Your task to perform on an android device: change keyboard looks Image 0: 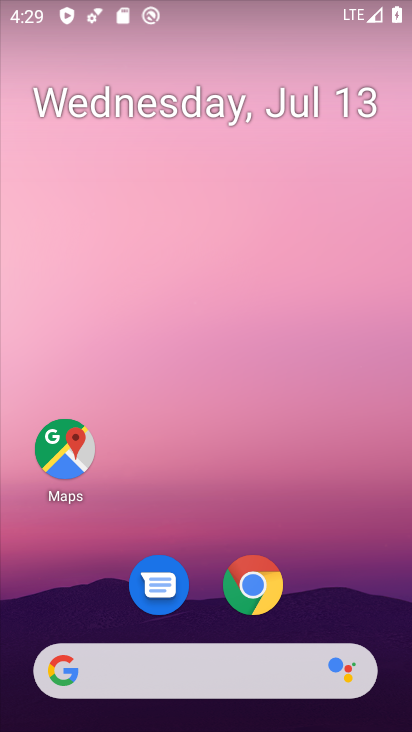
Step 0: drag from (376, 608) to (361, 41)
Your task to perform on an android device: change keyboard looks Image 1: 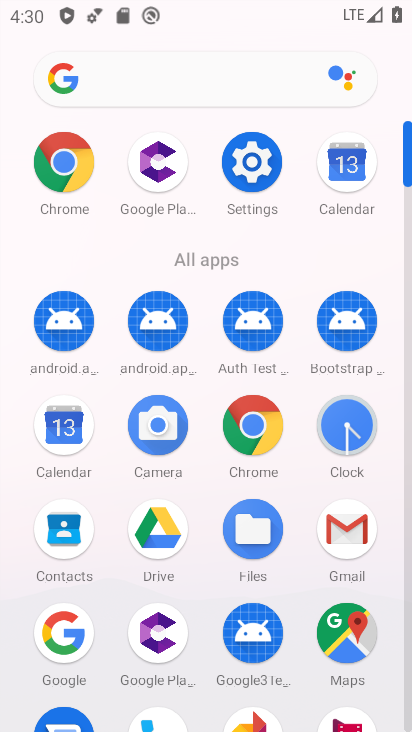
Step 1: click (254, 163)
Your task to perform on an android device: change keyboard looks Image 2: 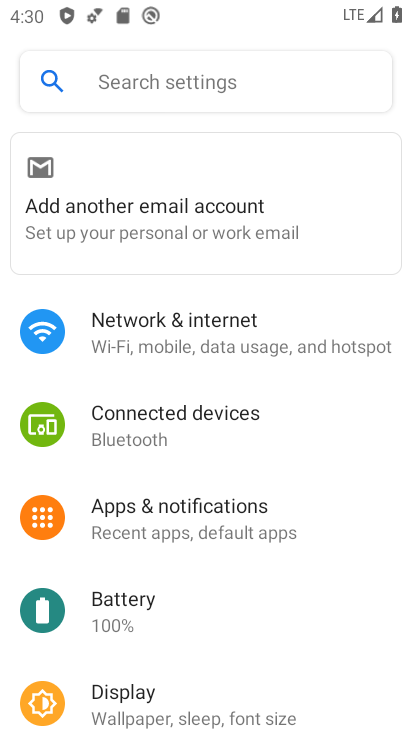
Step 2: drag from (213, 628) to (274, 1)
Your task to perform on an android device: change keyboard looks Image 3: 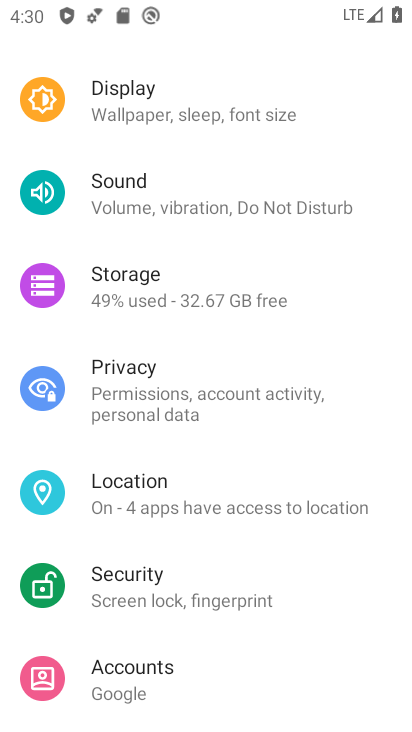
Step 3: drag from (227, 554) to (254, 343)
Your task to perform on an android device: change keyboard looks Image 4: 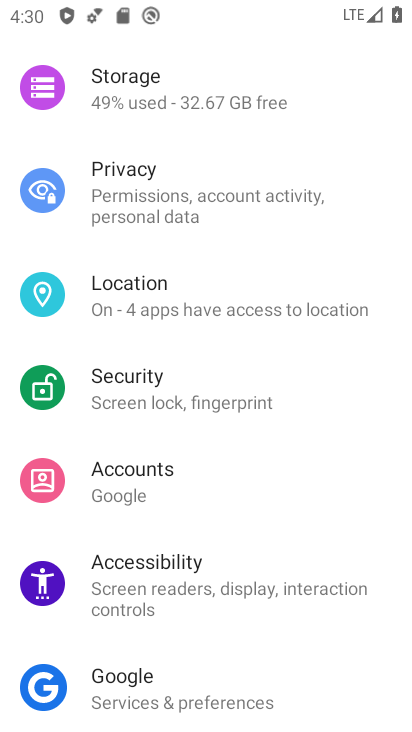
Step 4: drag from (243, 616) to (257, 288)
Your task to perform on an android device: change keyboard looks Image 5: 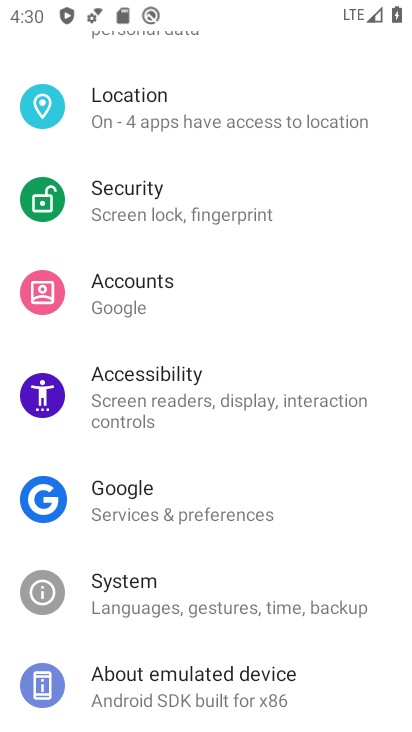
Step 5: click (216, 606)
Your task to perform on an android device: change keyboard looks Image 6: 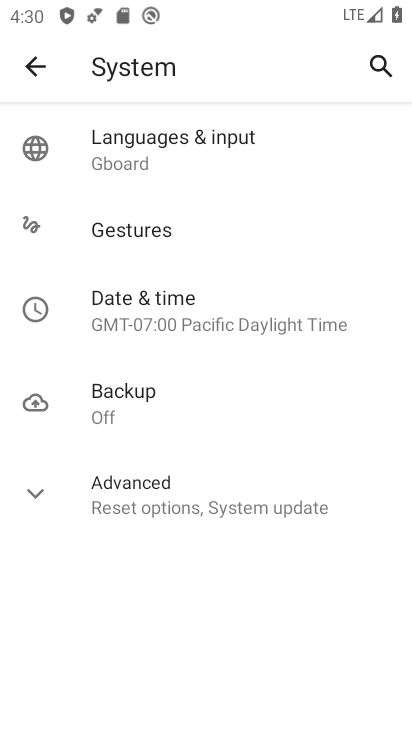
Step 6: click (142, 147)
Your task to perform on an android device: change keyboard looks Image 7: 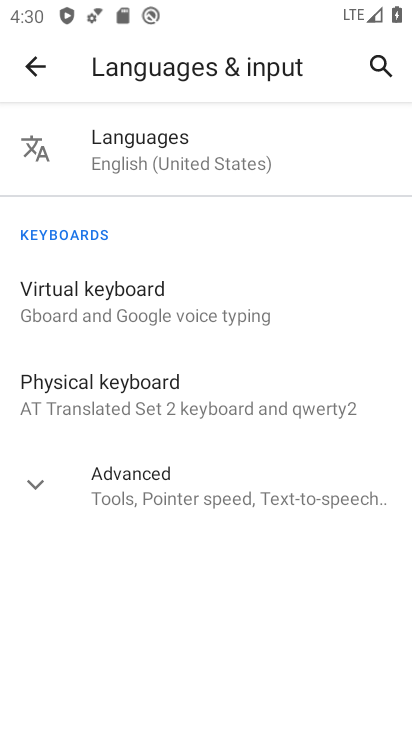
Step 7: click (129, 302)
Your task to perform on an android device: change keyboard looks Image 8: 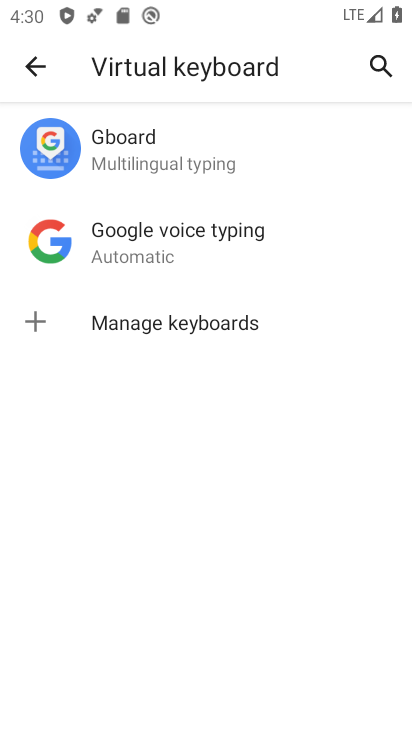
Step 8: click (137, 164)
Your task to perform on an android device: change keyboard looks Image 9: 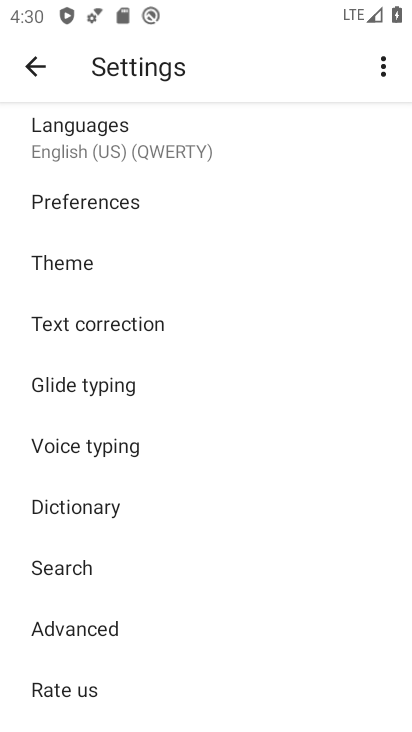
Step 9: click (79, 260)
Your task to perform on an android device: change keyboard looks Image 10: 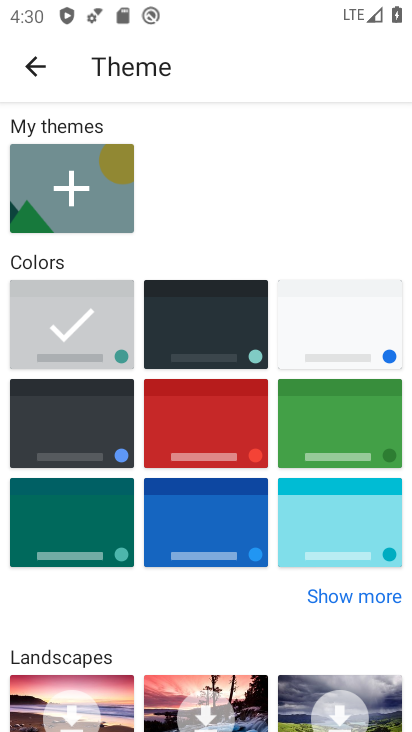
Step 10: click (178, 411)
Your task to perform on an android device: change keyboard looks Image 11: 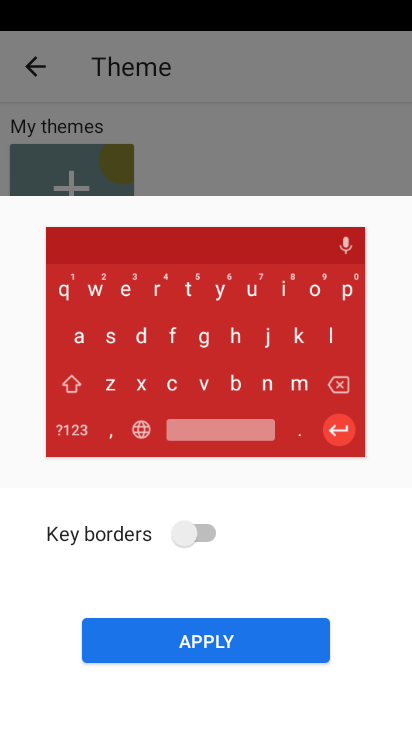
Step 11: click (204, 529)
Your task to perform on an android device: change keyboard looks Image 12: 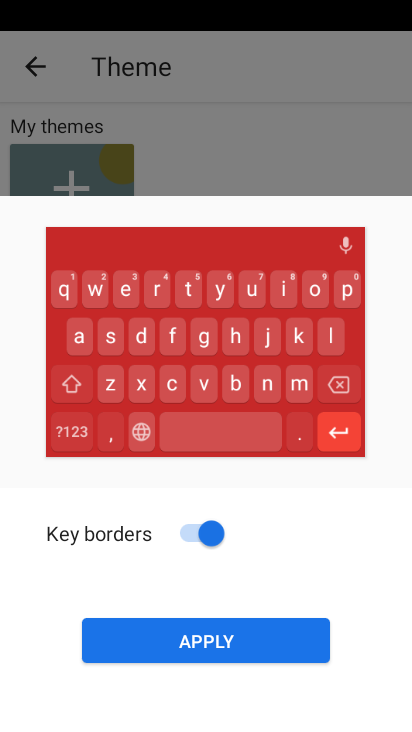
Step 12: click (222, 639)
Your task to perform on an android device: change keyboard looks Image 13: 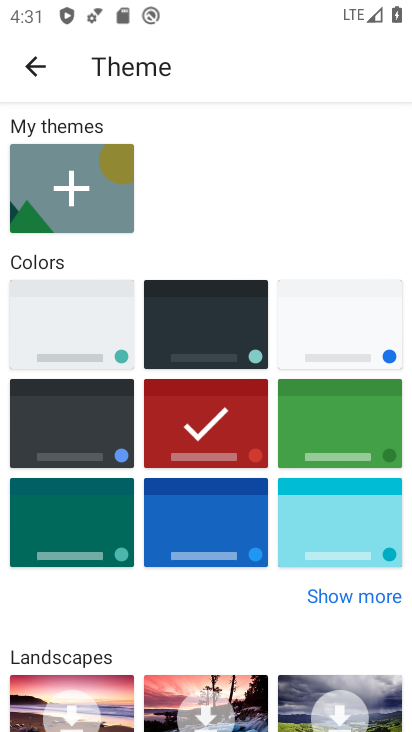
Step 13: task complete